Your task to perform on an android device: check storage Image 0: 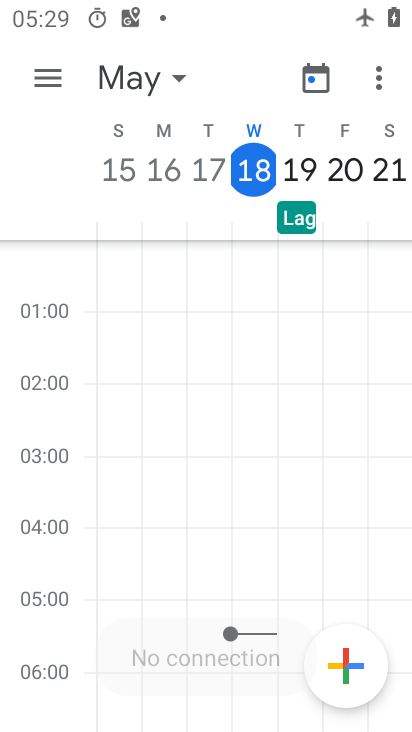
Step 0: press home button
Your task to perform on an android device: check storage Image 1: 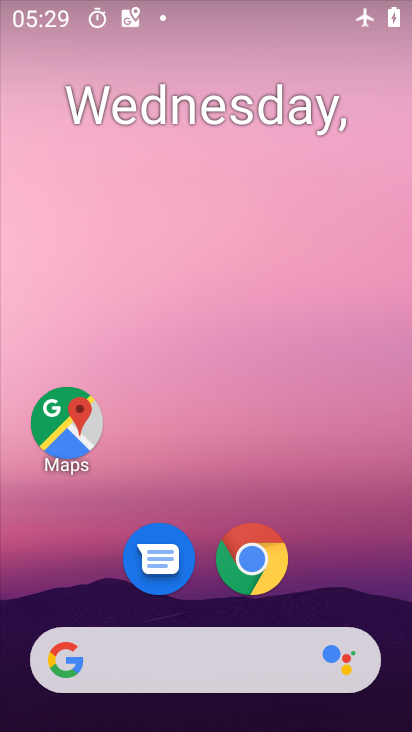
Step 1: drag from (353, 545) to (203, 60)
Your task to perform on an android device: check storage Image 2: 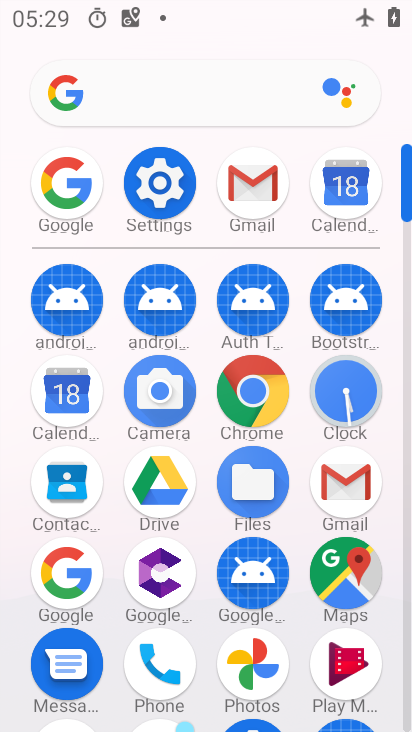
Step 2: click (160, 181)
Your task to perform on an android device: check storage Image 3: 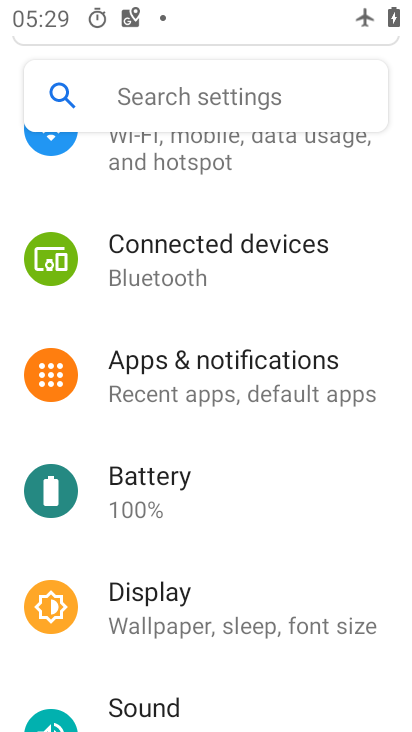
Step 3: drag from (280, 640) to (267, 166)
Your task to perform on an android device: check storage Image 4: 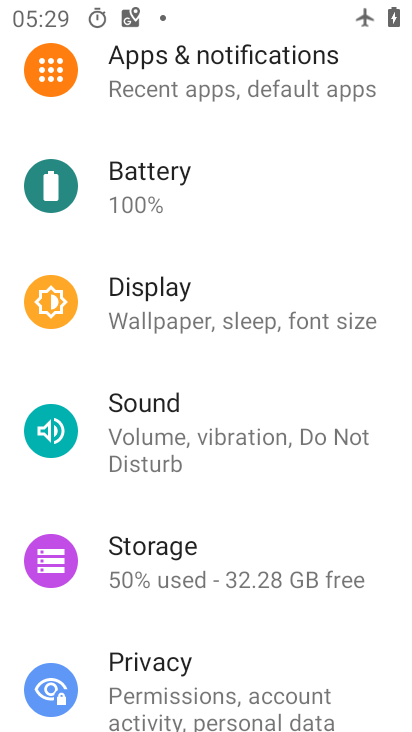
Step 4: click (261, 553)
Your task to perform on an android device: check storage Image 5: 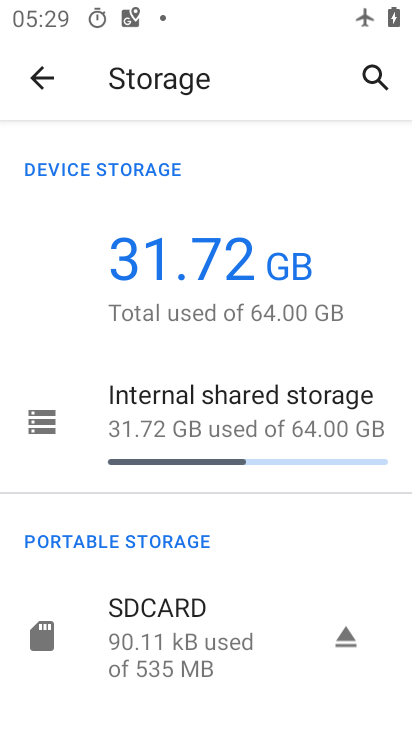
Step 5: task complete